Your task to perform on an android device: set an alarm Image 0: 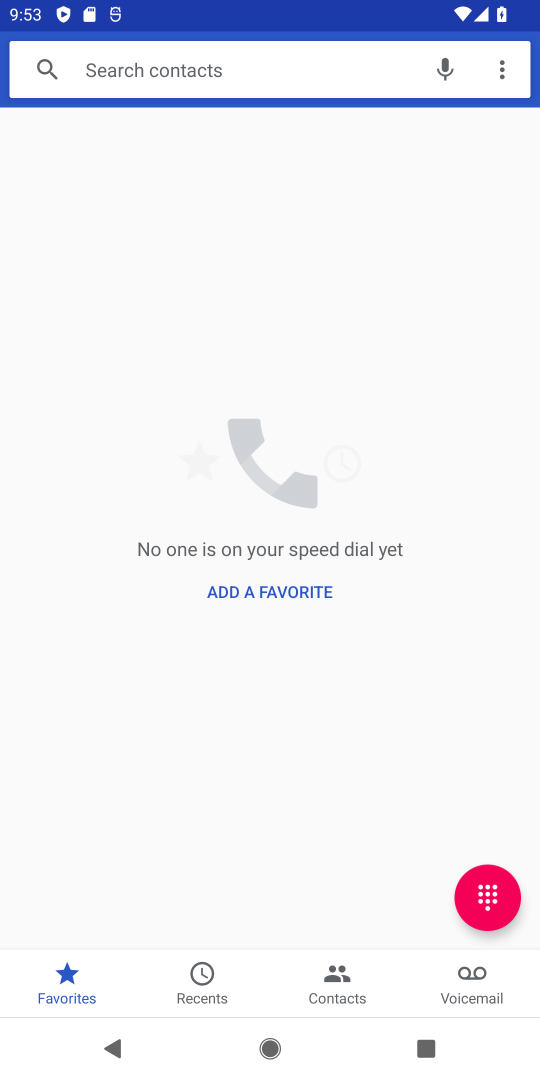
Step 0: press home button
Your task to perform on an android device: set an alarm Image 1: 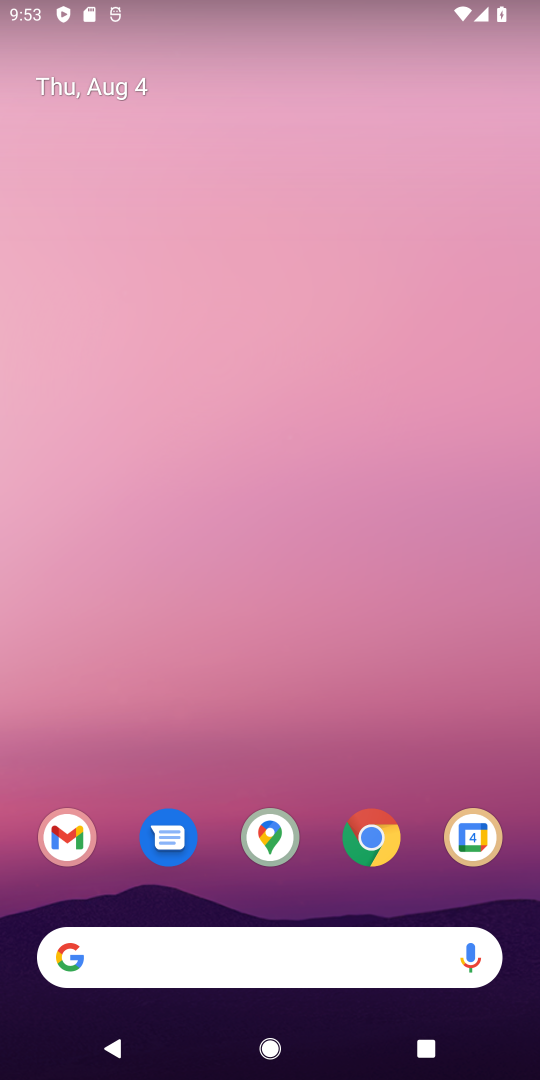
Step 1: drag from (394, 896) to (199, 108)
Your task to perform on an android device: set an alarm Image 2: 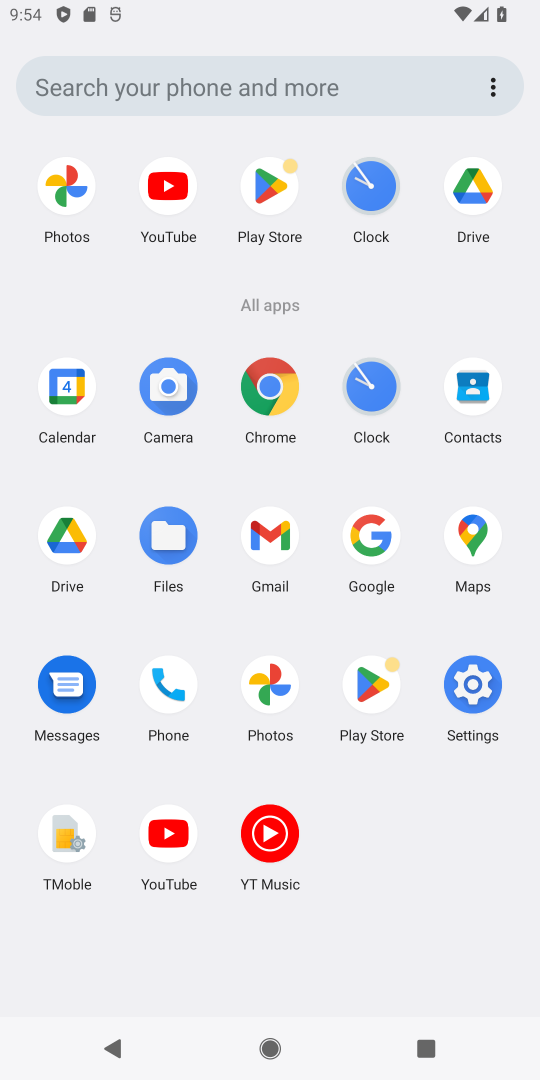
Step 2: click (366, 393)
Your task to perform on an android device: set an alarm Image 3: 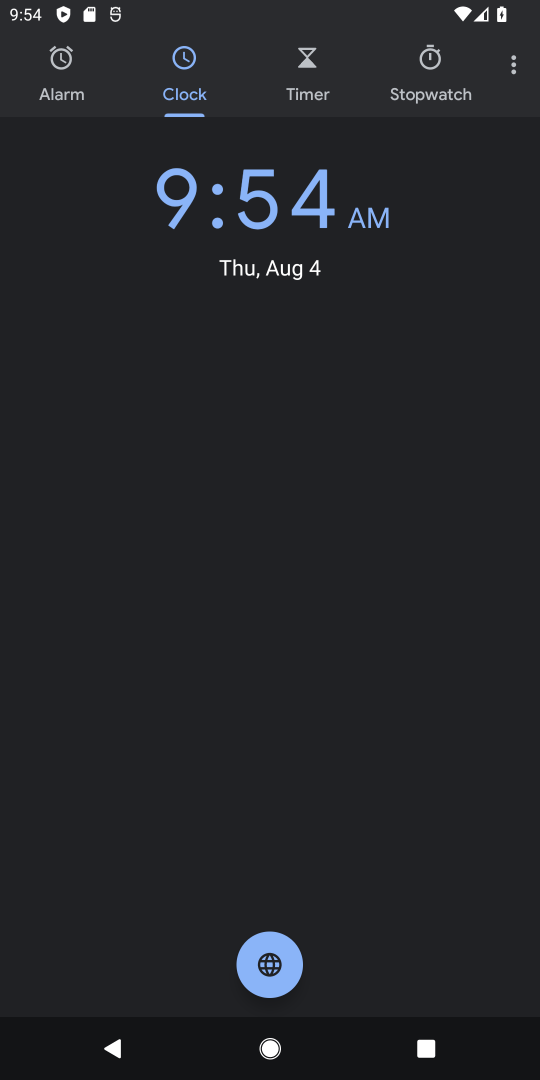
Step 3: click (49, 72)
Your task to perform on an android device: set an alarm Image 4: 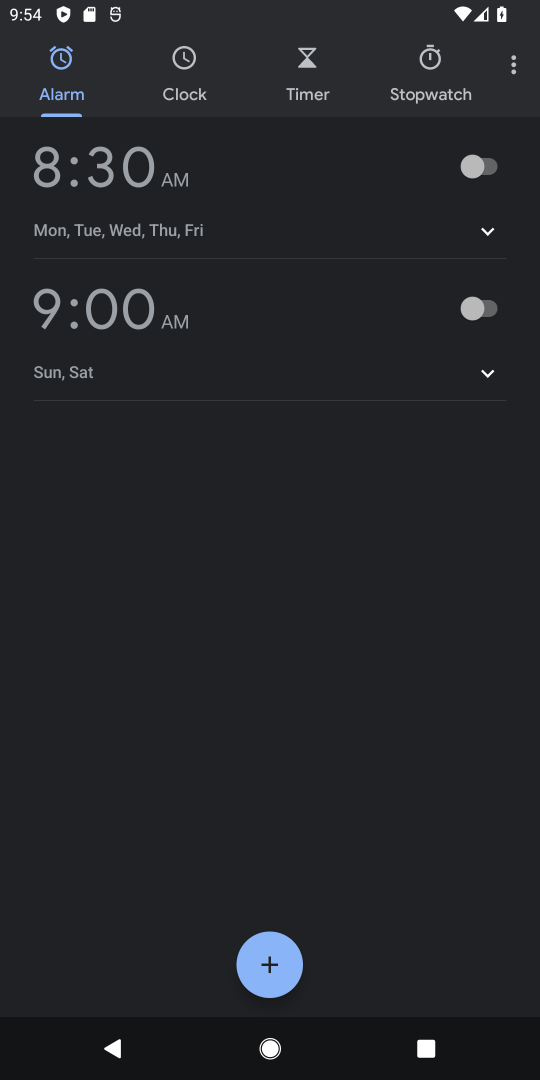
Step 4: click (474, 170)
Your task to perform on an android device: set an alarm Image 5: 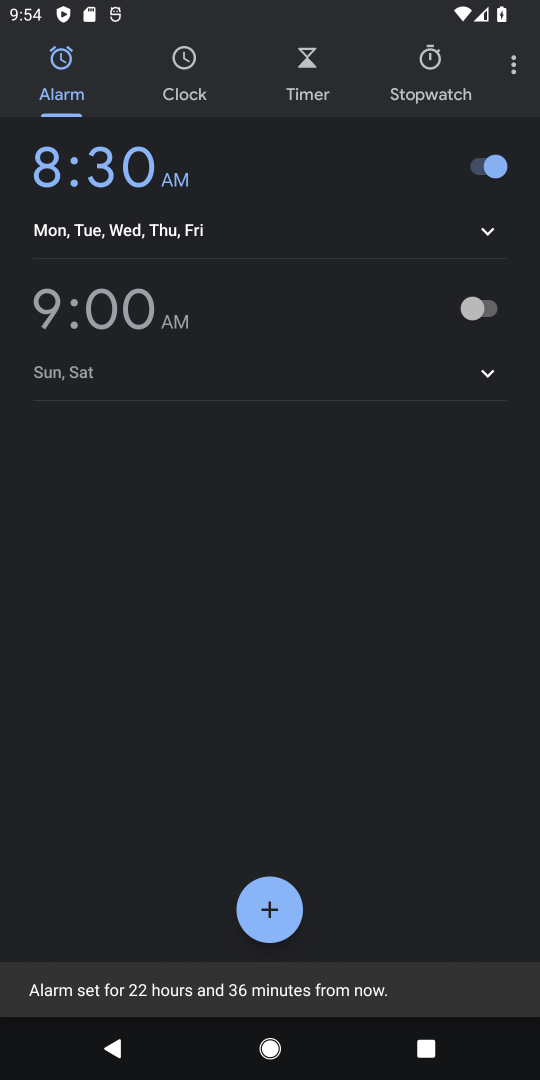
Step 5: task complete